Your task to perform on an android device: check android version Image 0: 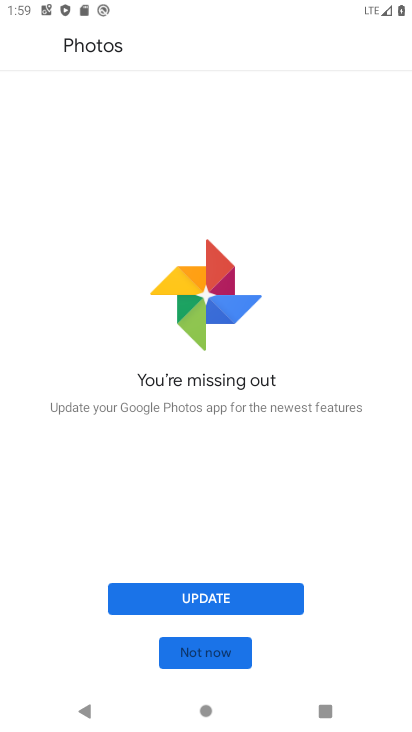
Step 0: press home button
Your task to perform on an android device: check android version Image 1: 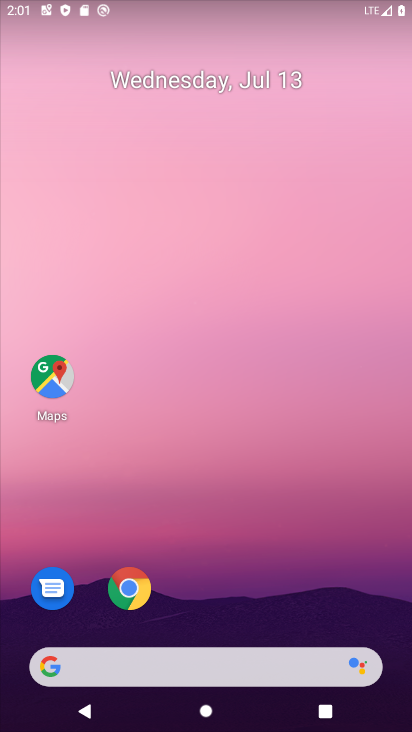
Step 1: drag from (395, 708) to (376, 157)
Your task to perform on an android device: check android version Image 2: 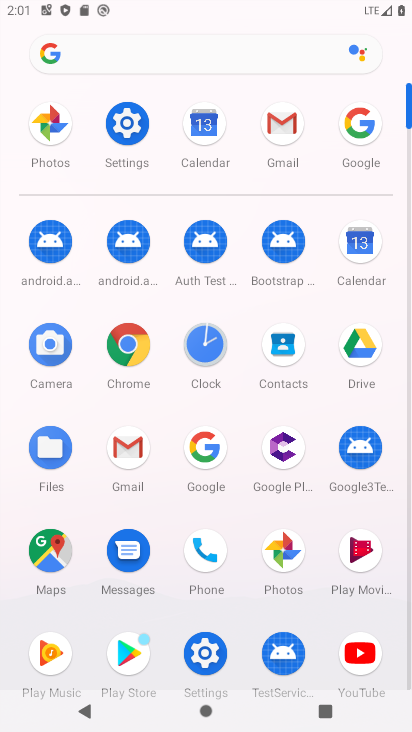
Step 2: click (204, 654)
Your task to perform on an android device: check android version Image 3: 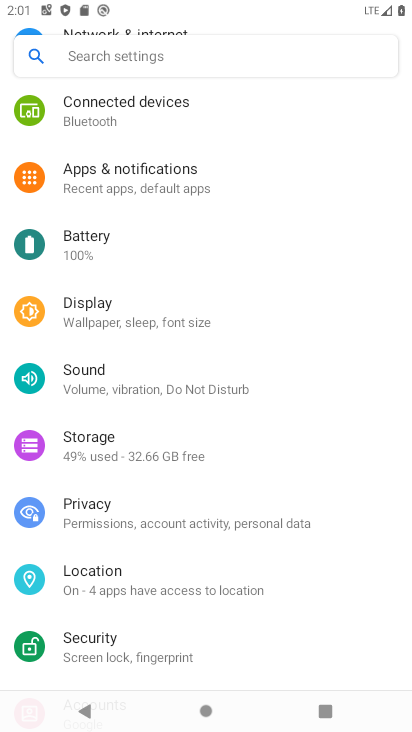
Step 3: drag from (225, 638) to (239, 264)
Your task to perform on an android device: check android version Image 4: 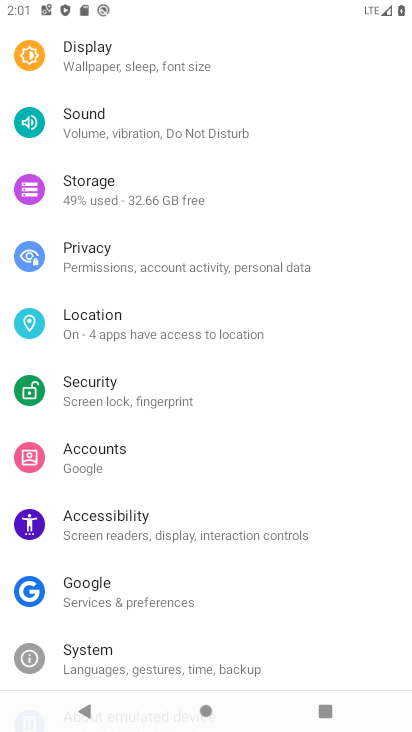
Step 4: drag from (255, 632) to (220, 217)
Your task to perform on an android device: check android version Image 5: 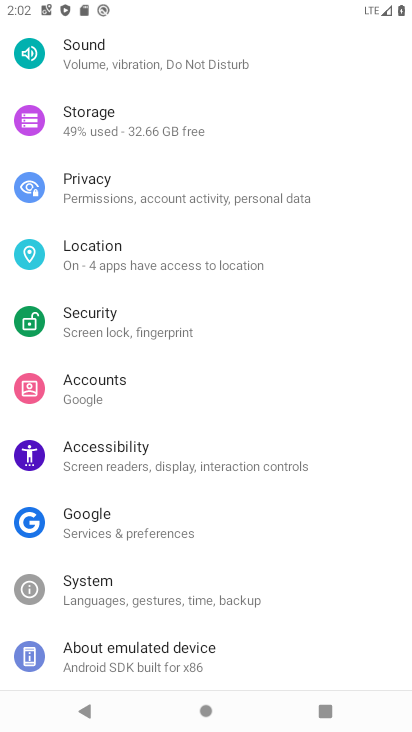
Step 5: click (122, 641)
Your task to perform on an android device: check android version Image 6: 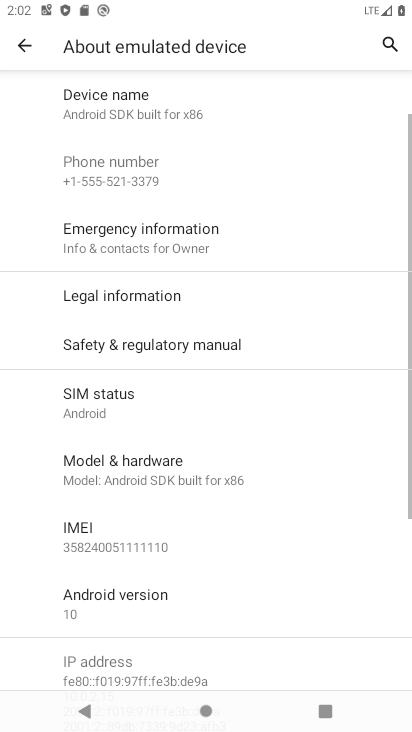
Step 6: drag from (303, 667) to (290, 365)
Your task to perform on an android device: check android version Image 7: 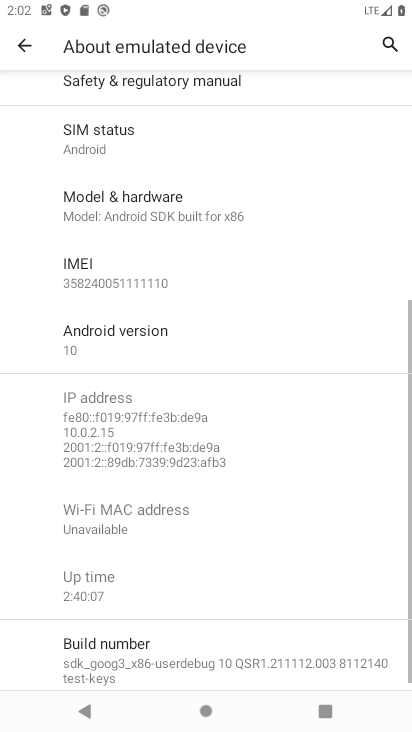
Step 7: click (115, 339)
Your task to perform on an android device: check android version Image 8: 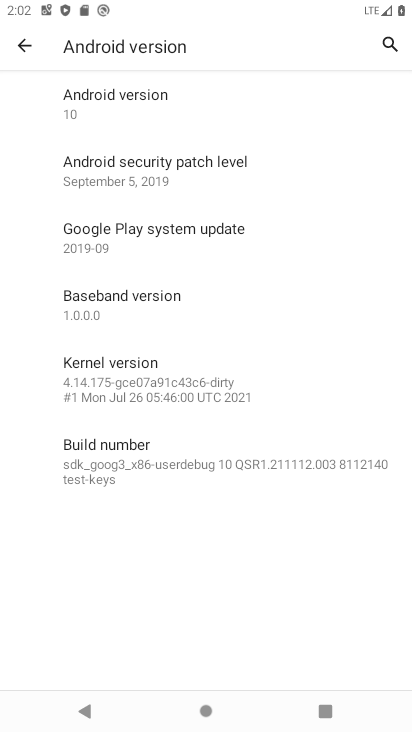
Step 8: click (97, 94)
Your task to perform on an android device: check android version Image 9: 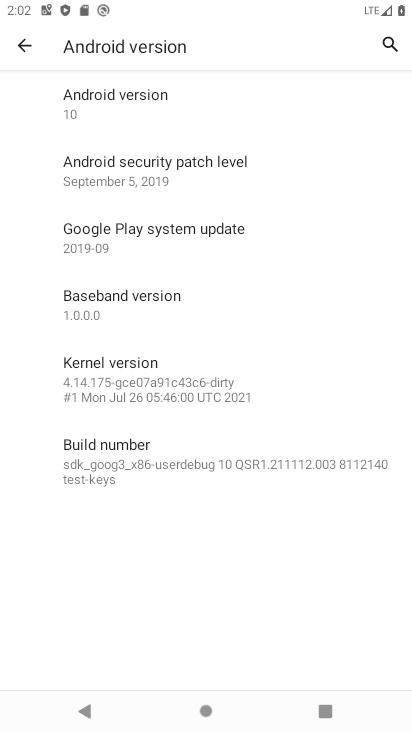
Step 9: task complete